Your task to perform on an android device: What's the weather going to be this weekend? Image 0: 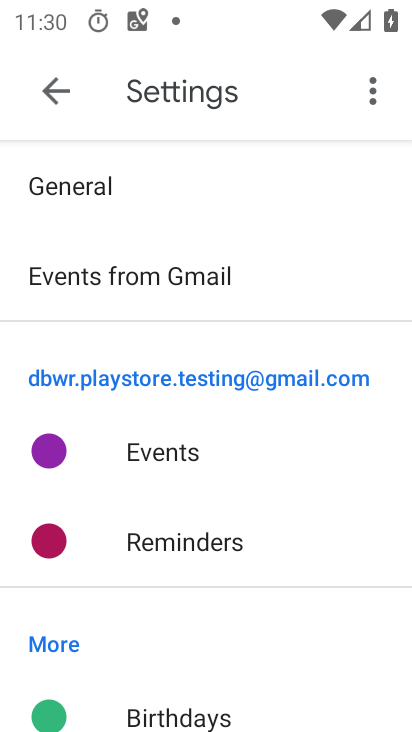
Step 0: press home button
Your task to perform on an android device: What's the weather going to be this weekend? Image 1: 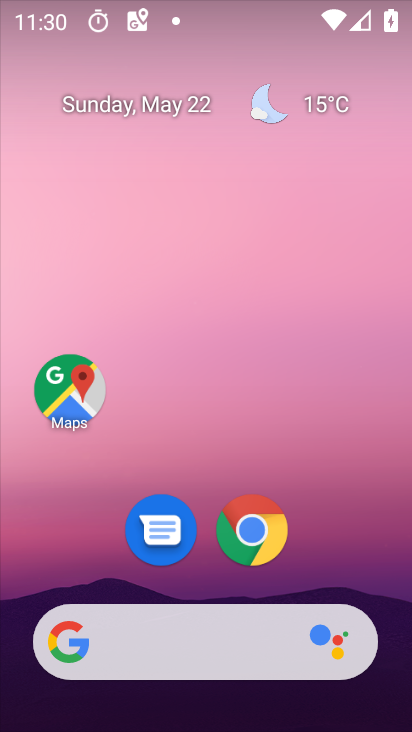
Step 1: click (329, 99)
Your task to perform on an android device: What's the weather going to be this weekend? Image 2: 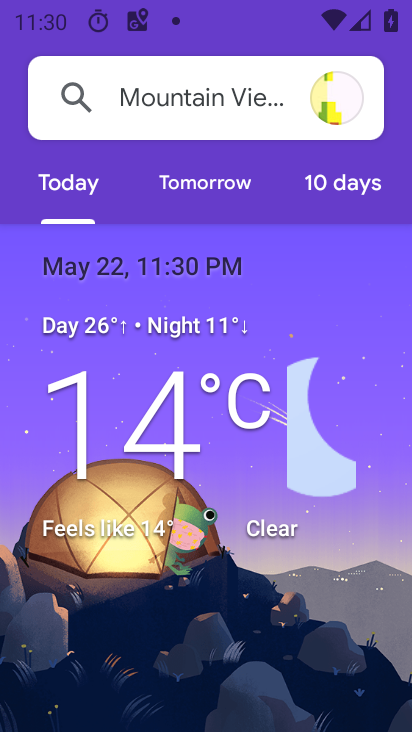
Step 2: click (334, 177)
Your task to perform on an android device: What's the weather going to be this weekend? Image 3: 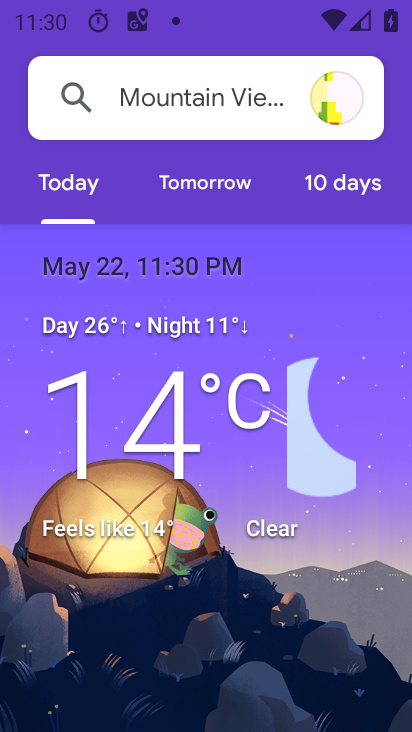
Step 3: task complete